Your task to perform on an android device: Add macbook pro to the cart on costco.com Image 0: 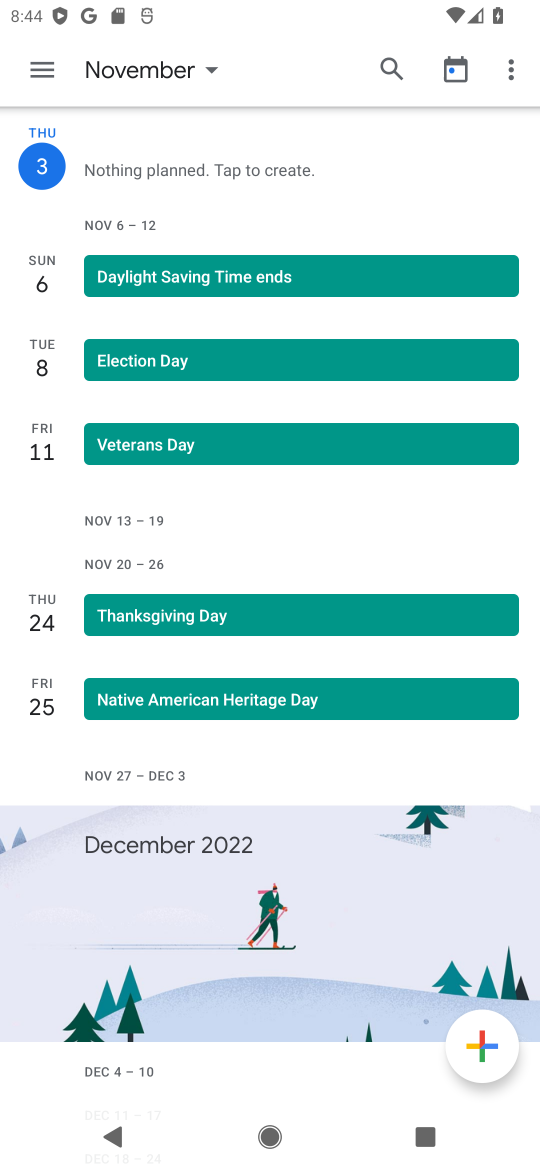
Step 0: press home button
Your task to perform on an android device: Add macbook pro to the cart on costco.com Image 1: 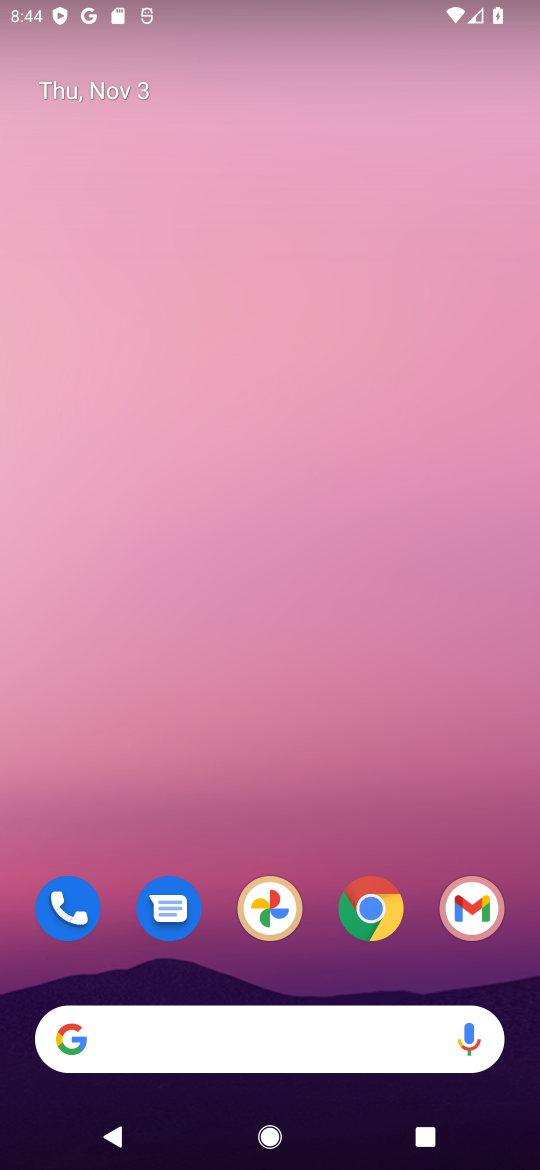
Step 1: click (380, 898)
Your task to perform on an android device: Add macbook pro to the cart on costco.com Image 2: 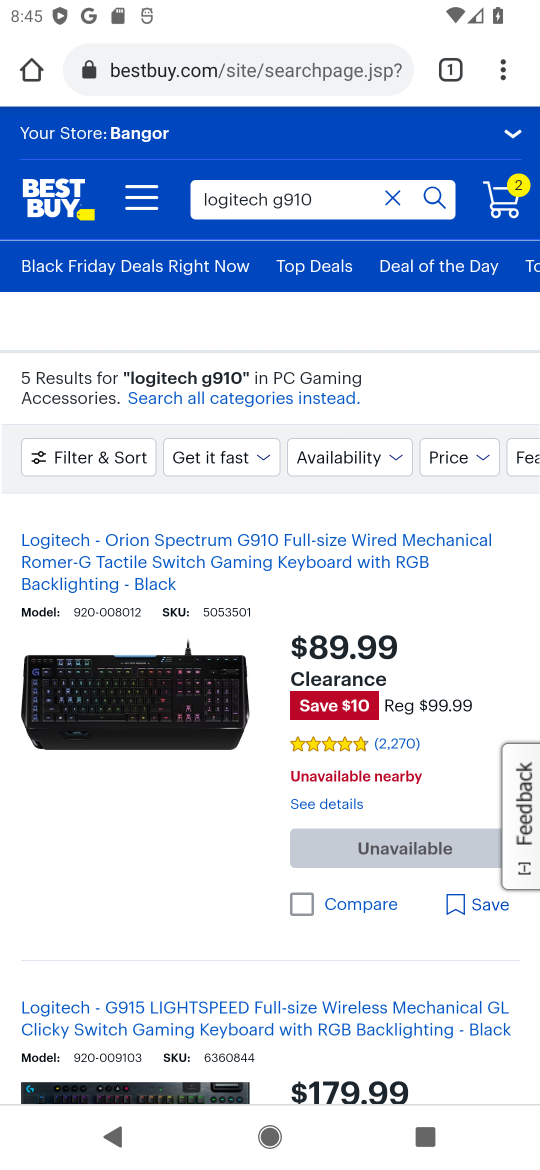
Step 2: click (230, 73)
Your task to perform on an android device: Add macbook pro to the cart on costco.com Image 3: 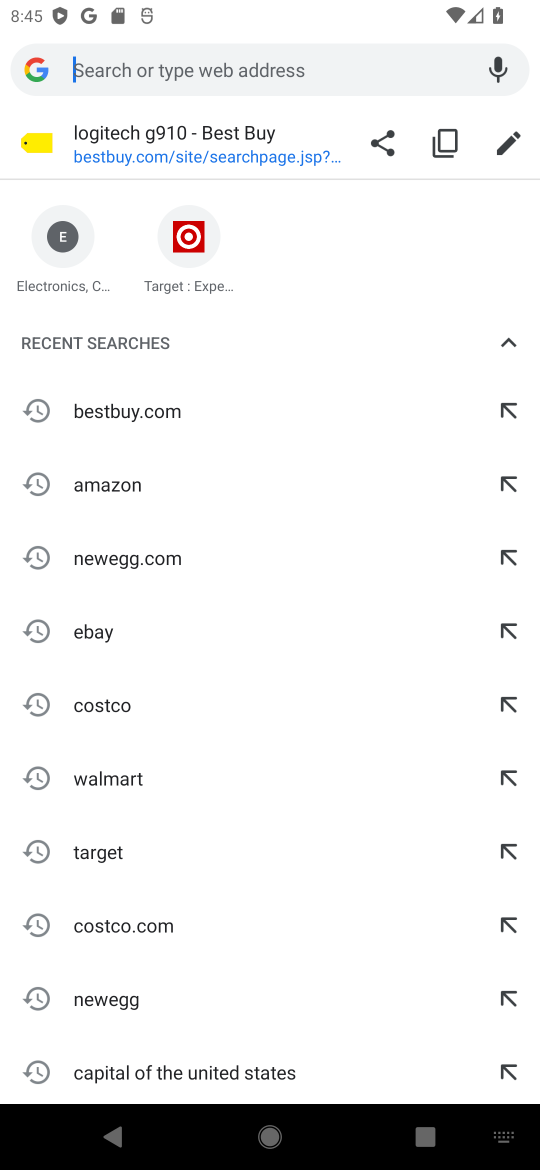
Step 3: type "costco.com"
Your task to perform on an android device: Add macbook pro to the cart on costco.com Image 4: 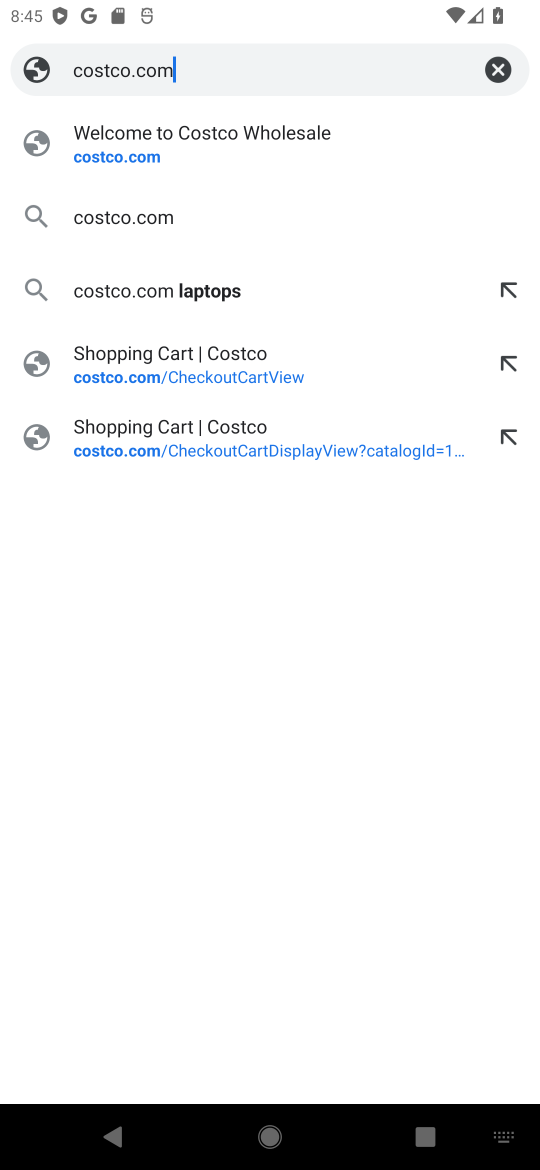
Step 4: click (109, 225)
Your task to perform on an android device: Add macbook pro to the cart on costco.com Image 5: 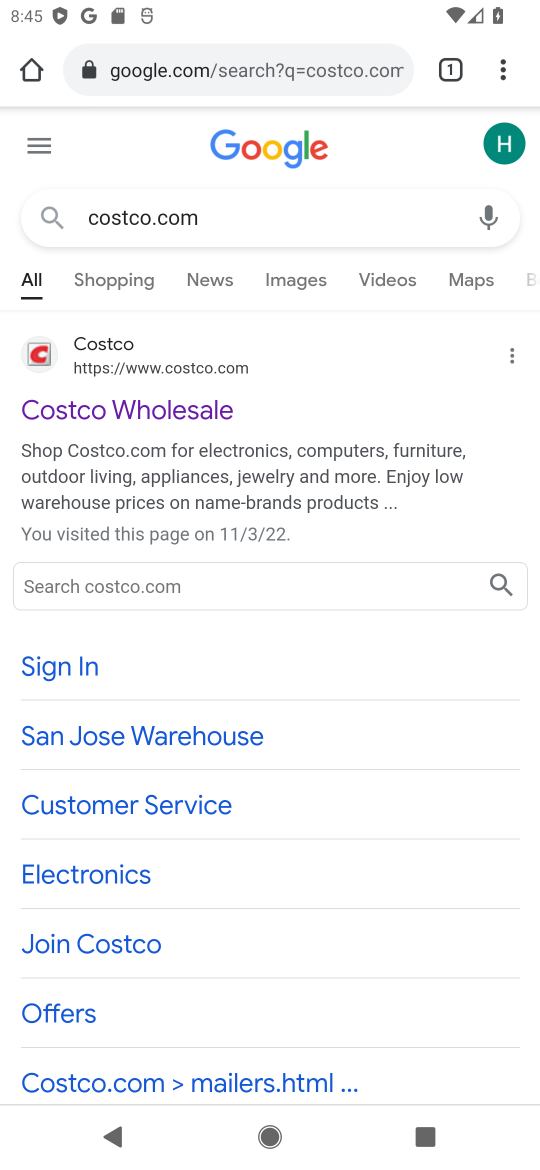
Step 5: click (90, 354)
Your task to perform on an android device: Add macbook pro to the cart on costco.com Image 6: 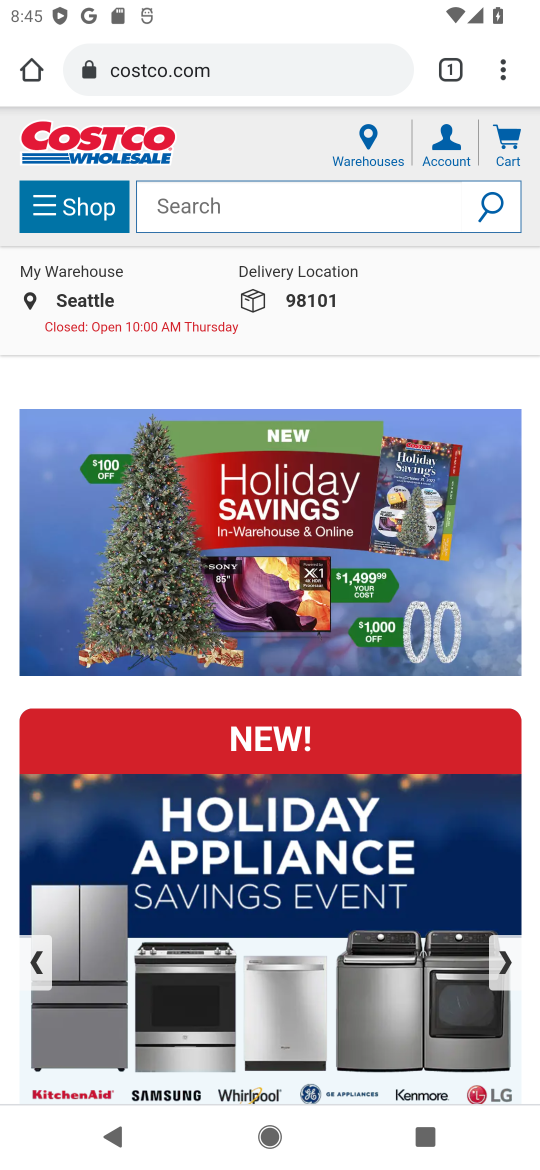
Step 6: click (311, 200)
Your task to perform on an android device: Add macbook pro to the cart on costco.com Image 7: 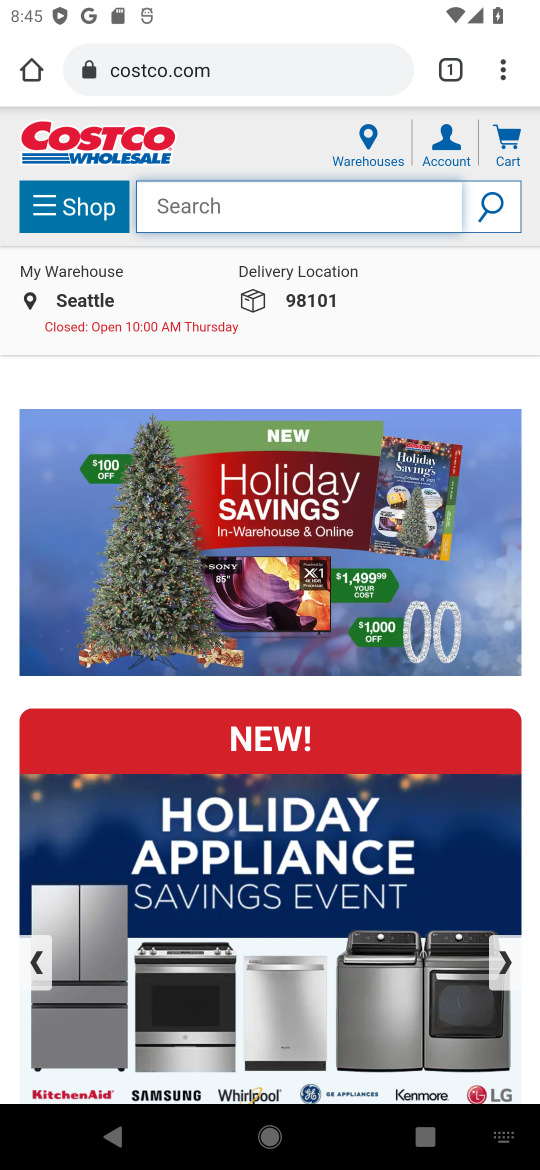
Step 7: type "macbook pro"
Your task to perform on an android device: Add macbook pro to the cart on costco.com Image 8: 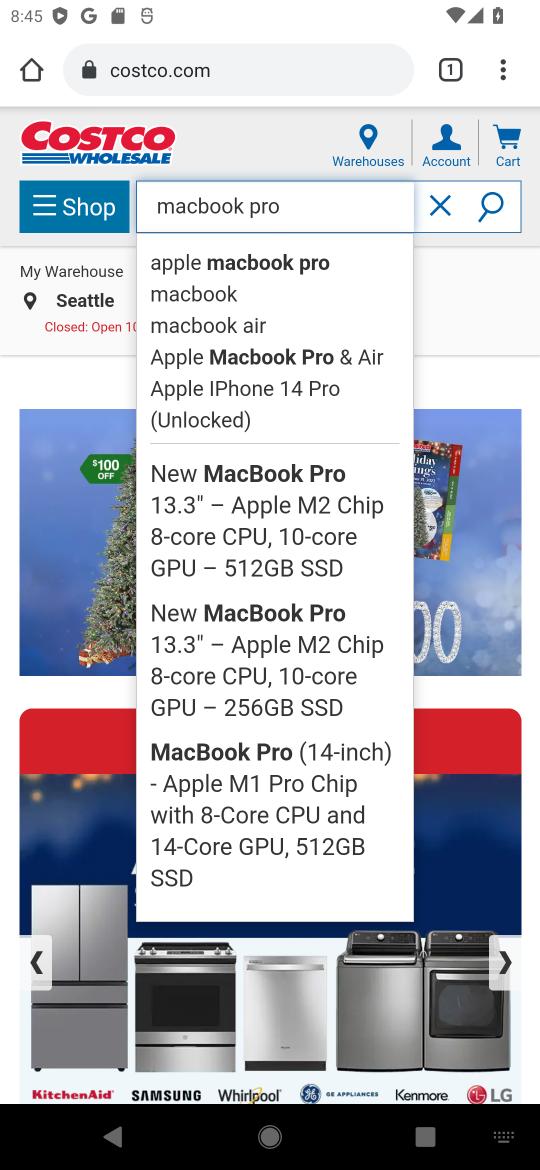
Step 8: click (226, 294)
Your task to perform on an android device: Add macbook pro to the cart on costco.com Image 9: 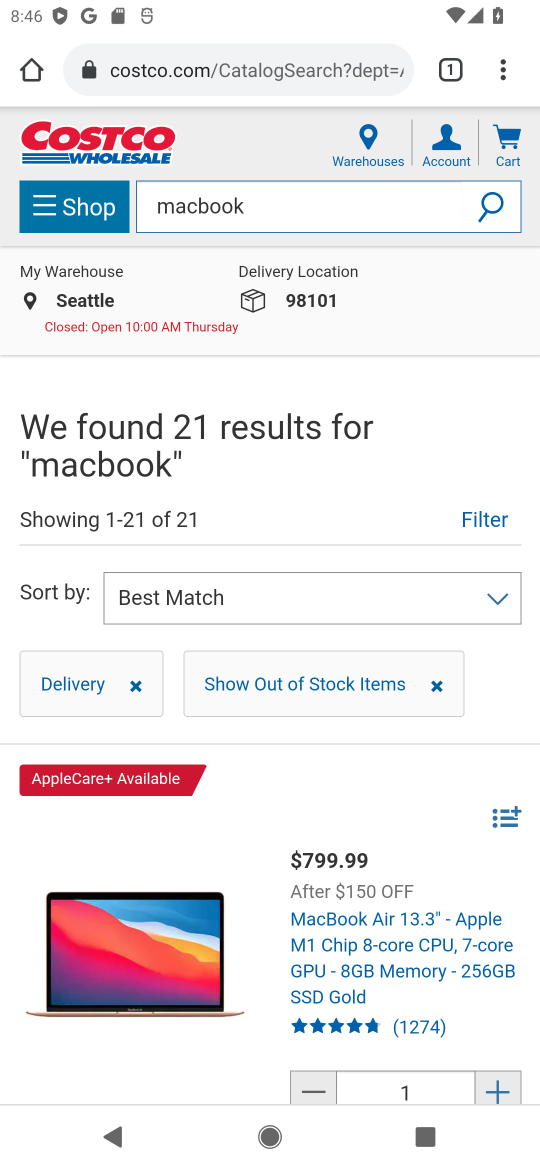
Step 9: drag from (449, 947) to (462, 544)
Your task to perform on an android device: Add macbook pro to the cart on costco.com Image 10: 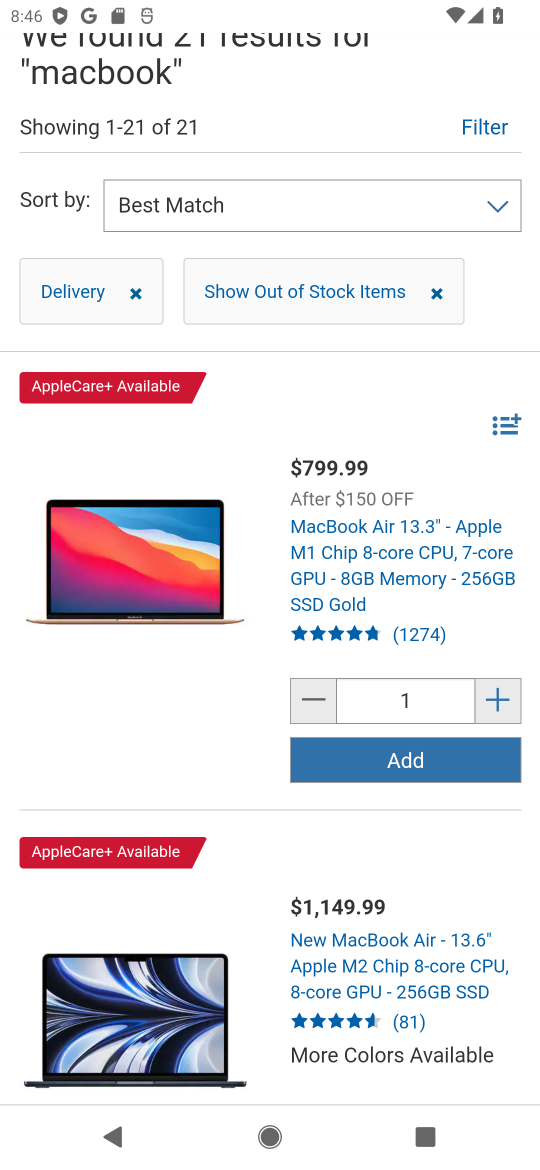
Step 10: drag from (424, 1010) to (389, 532)
Your task to perform on an android device: Add macbook pro to the cart on costco.com Image 11: 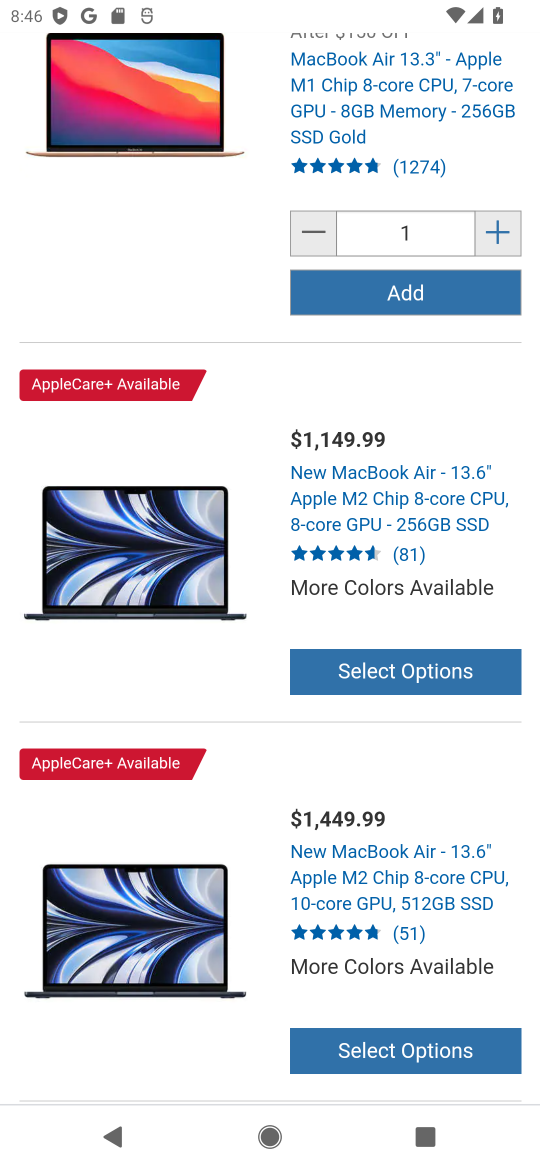
Step 11: drag from (436, 938) to (442, 532)
Your task to perform on an android device: Add macbook pro to the cart on costco.com Image 12: 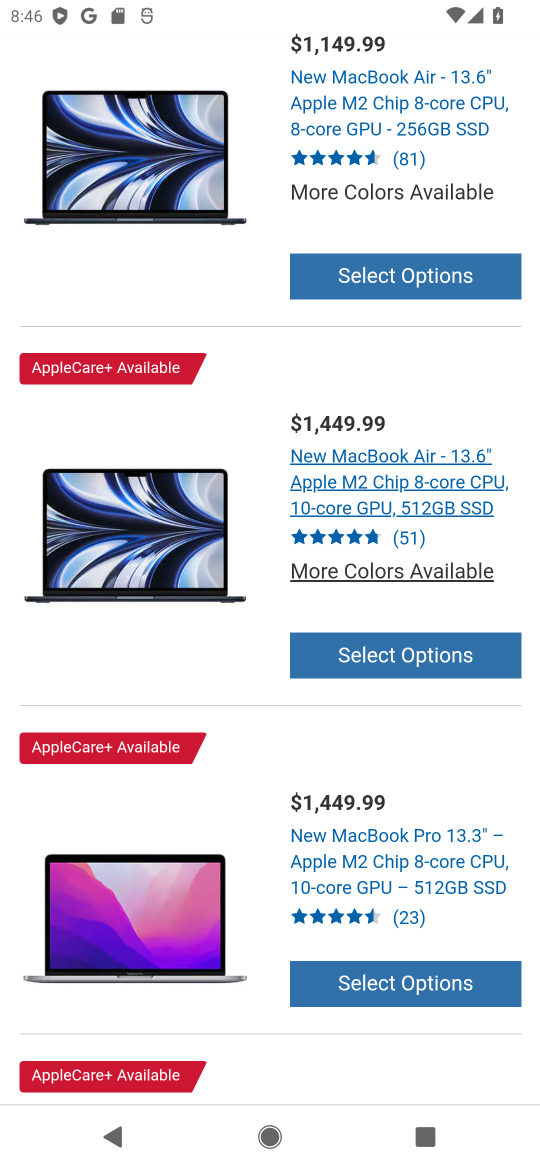
Step 12: click (117, 901)
Your task to perform on an android device: Add macbook pro to the cart on costco.com Image 13: 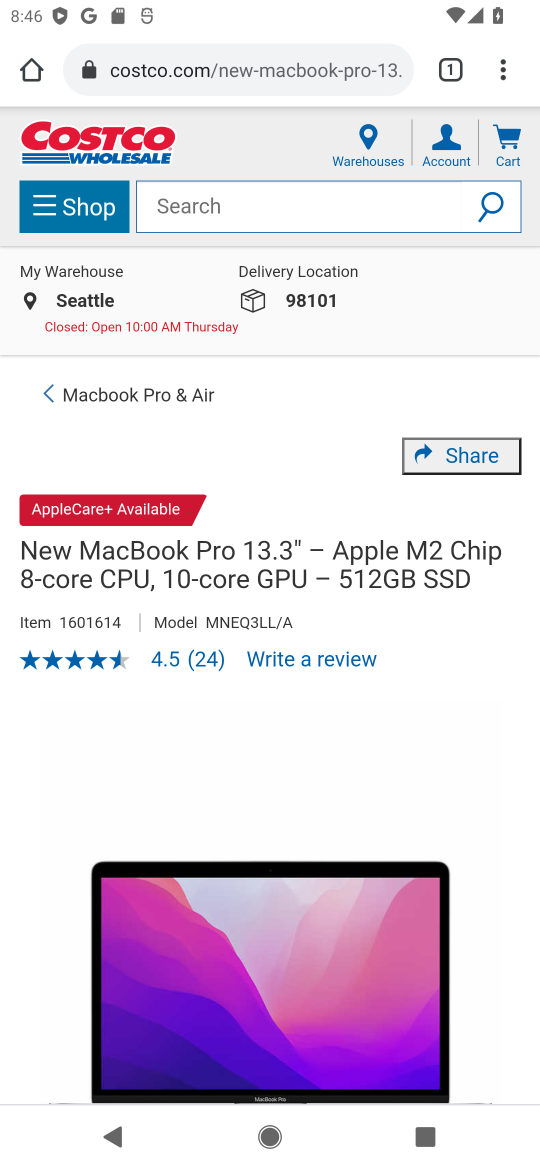
Step 13: drag from (184, 880) to (224, 474)
Your task to perform on an android device: Add macbook pro to the cart on costco.com Image 14: 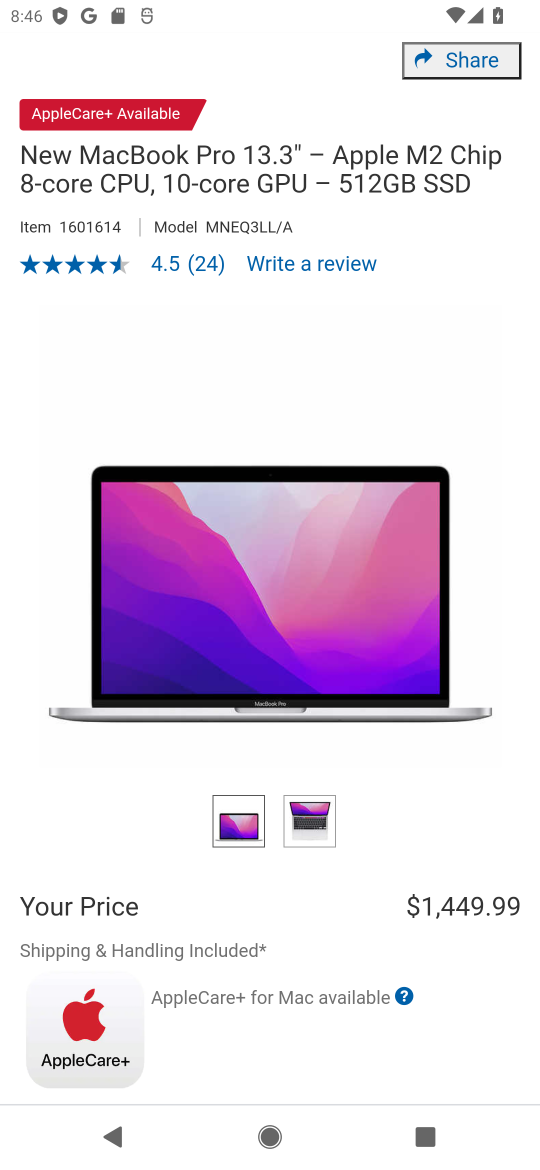
Step 14: drag from (372, 911) to (392, 470)
Your task to perform on an android device: Add macbook pro to the cart on costco.com Image 15: 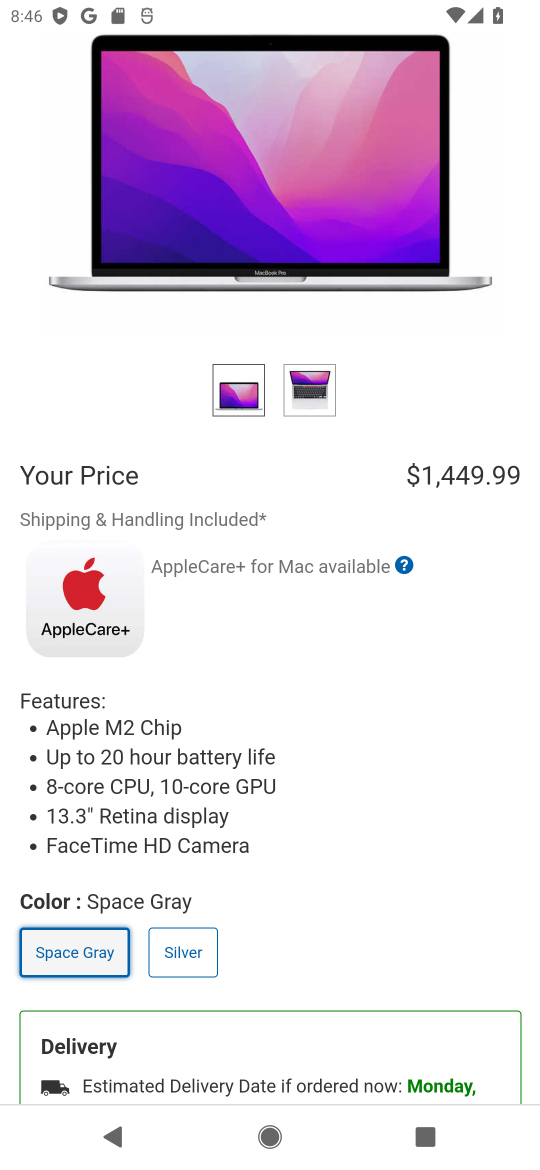
Step 15: drag from (450, 920) to (414, 455)
Your task to perform on an android device: Add macbook pro to the cart on costco.com Image 16: 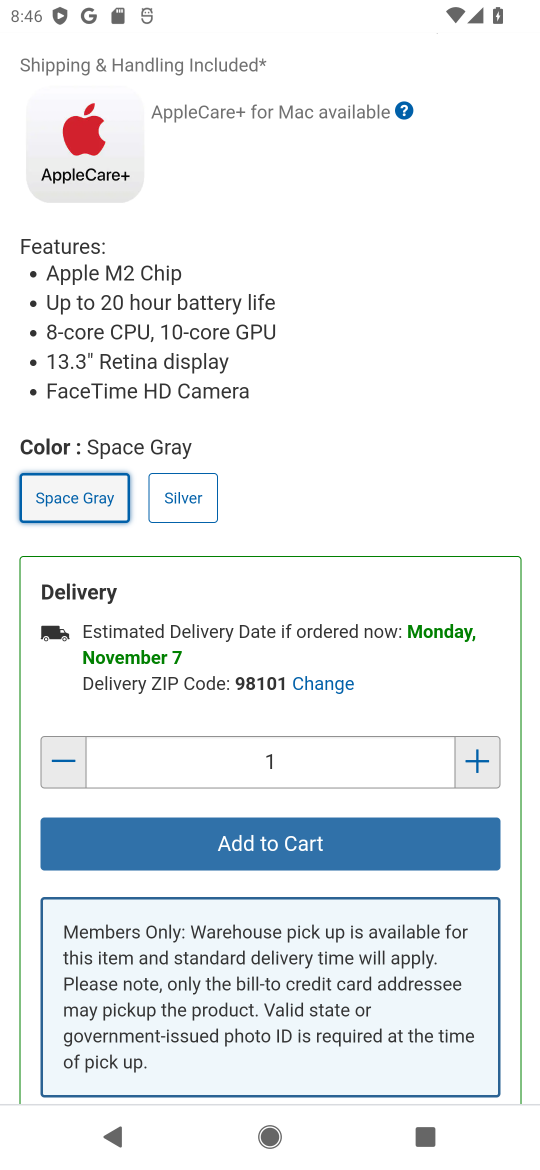
Step 16: click (291, 852)
Your task to perform on an android device: Add macbook pro to the cart on costco.com Image 17: 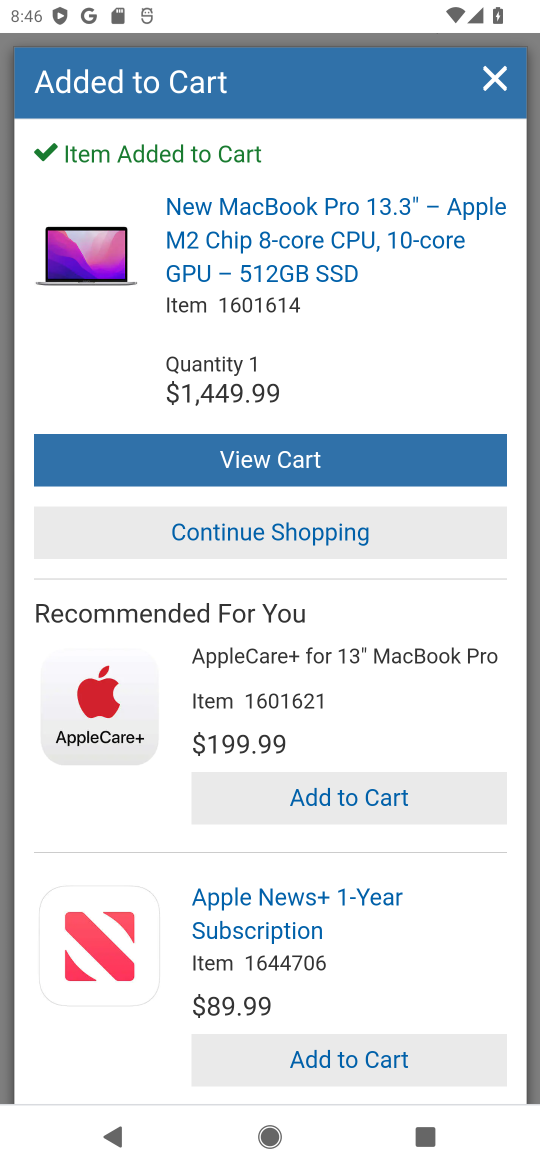
Step 17: task complete